Your task to perform on an android device: allow cookies in the chrome app Image 0: 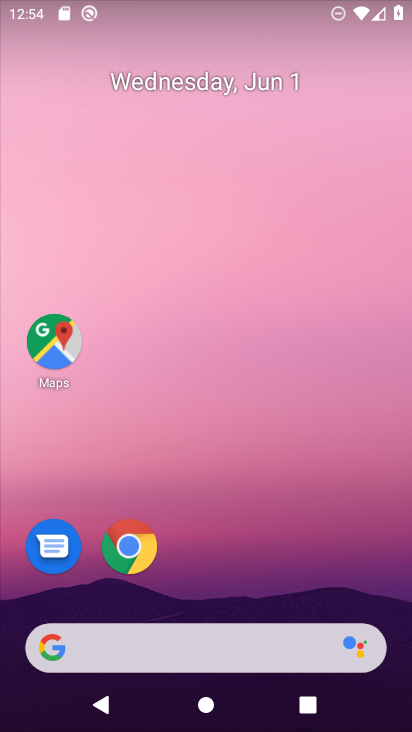
Step 0: click (143, 557)
Your task to perform on an android device: allow cookies in the chrome app Image 1: 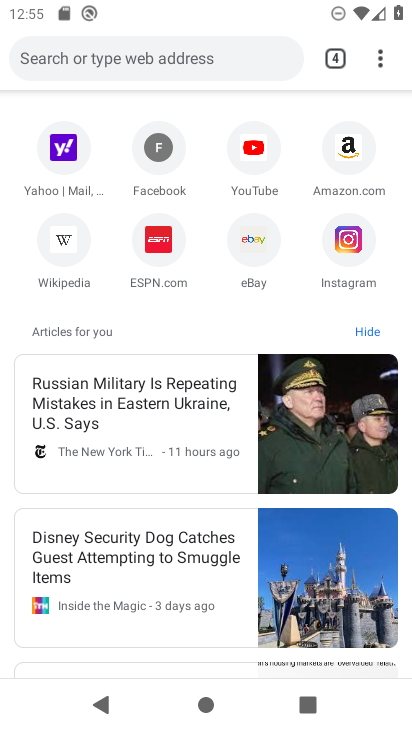
Step 1: click (380, 64)
Your task to perform on an android device: allow cookies in the chrome app Image 2: 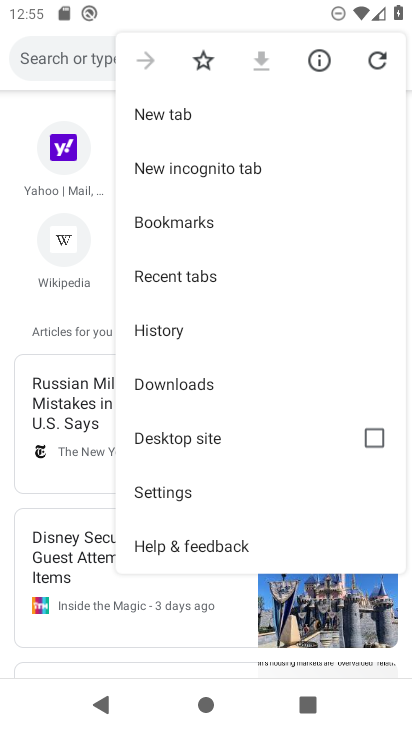
Step 2: click (184, 494)
Your task to perform on an android device: allow cookies in the chrome app Image 3: 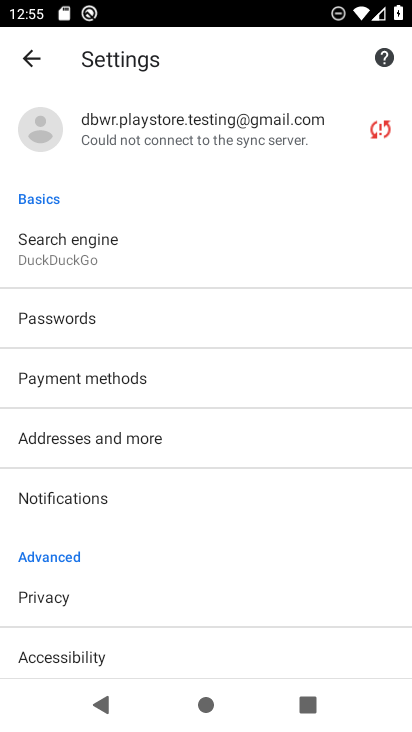
Step 3: drag from (154, 564) to (142, 382)
Your task to perform on an android device: allow cookies in the chrome app Image 4: 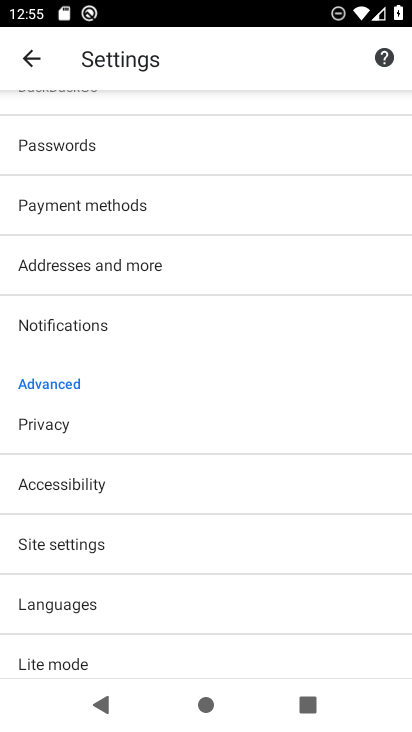
Step 4: click (70, 543)
Your task to perform on an android device: allow cookies in the chrome app Image 5: 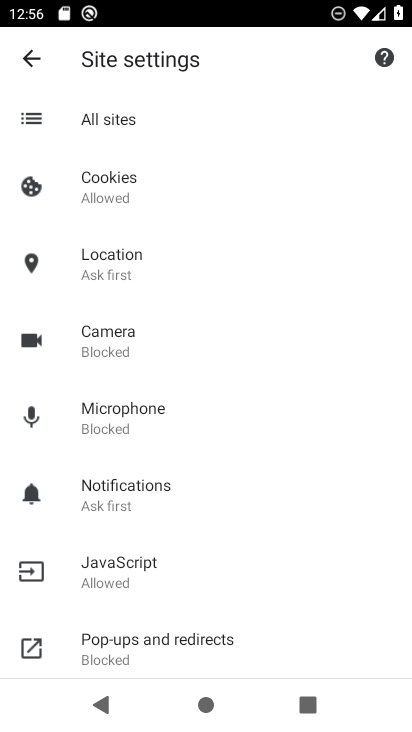
Step 5: drag from (122, 599) to (129, 458)
Your task to perform on an android device: allow cookies in the chrome app Image 6: 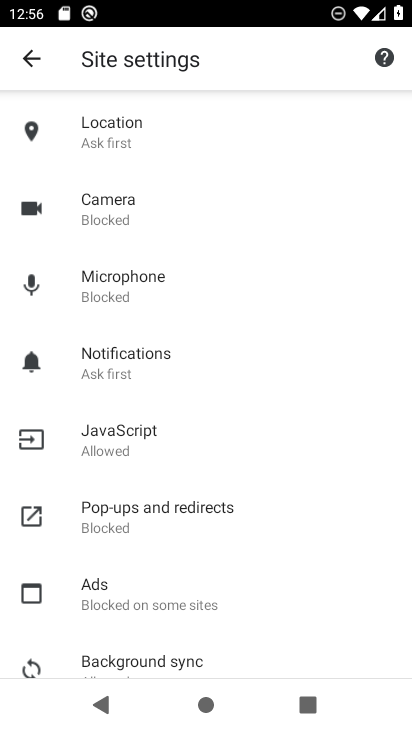
Step 6: drag from (143, 628) to (152, 335)
Your task to perform on an android device: allow cookies in the chrome app Image 7: 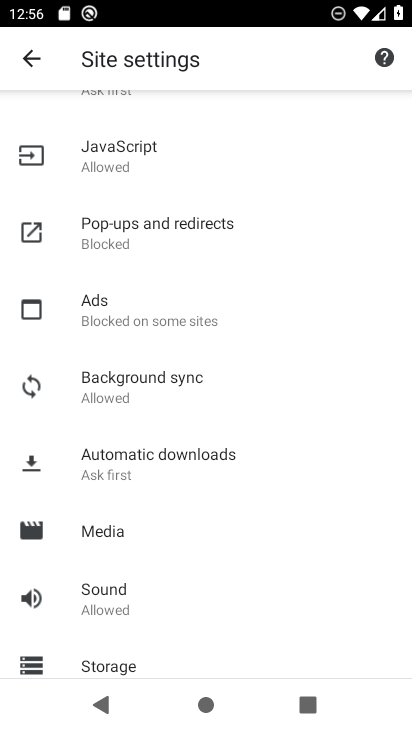
Step 7: drag from (179, 525) to (180, 628)
Your task to perform on an android device: allow cookies in the chrome app Image 8: 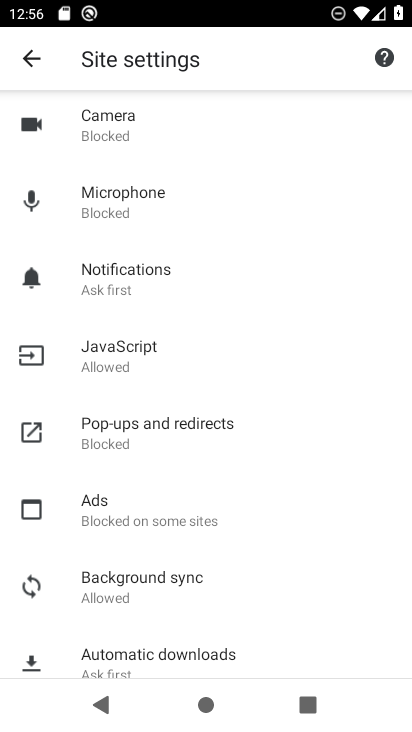
Step 8: drag from (191, 185) to (190, 503)
Your task to perform on an android device: allow cookies in the chrome app Image 9: 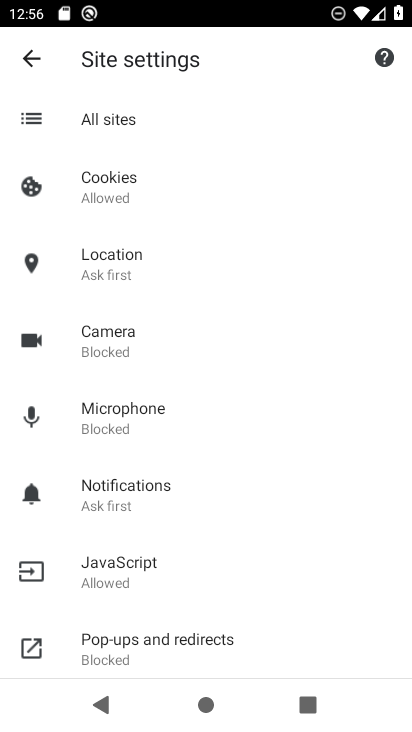
Step 9: click (114, 189)
Your task to perform on an android device: allow cookies in the chrome app Image 10: 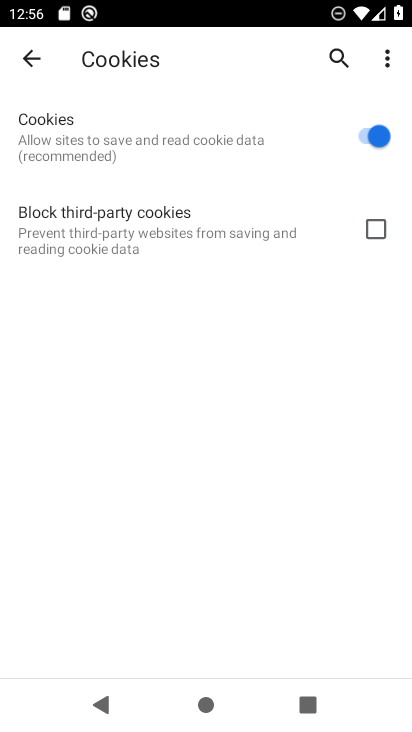
Step 10: task complete